Your task to perform on an android device: visit the assistant section in the google photos Image 0: 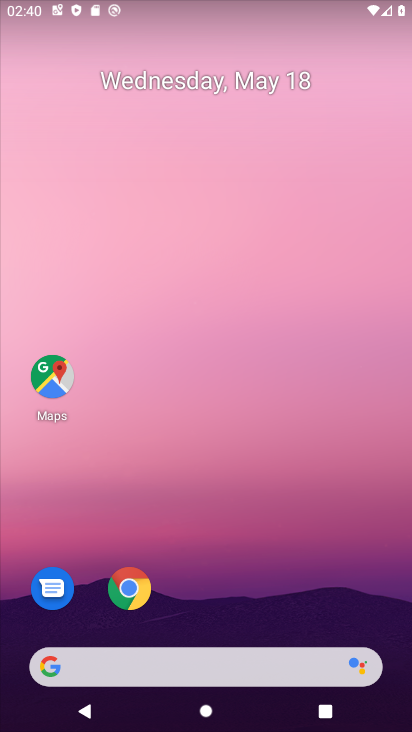
Step 0: drag from (54, 514) to (229, 171)
Your task to perform on an android device: visit the assistant section in the google photos Image 1: 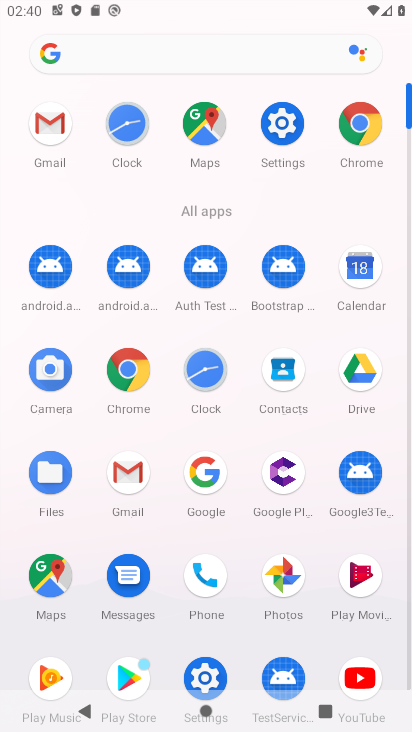
Step 1: click (280, 560)
Your task to perform on an android device: visit the assistant section in the google photos Image 2: 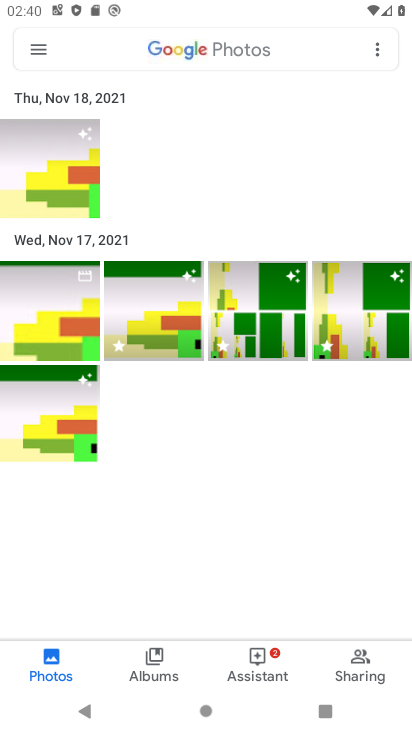
Step 2: click (245, 656)
Your task to perform on an android device: visit the assistant section in the google photos Image 3: 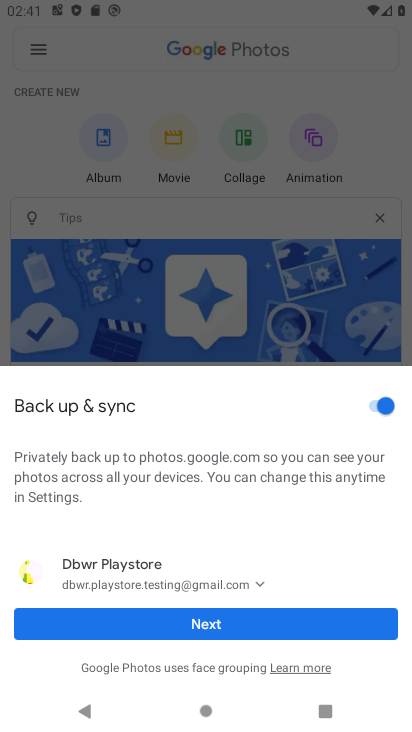
Step 3: click (213, 618)
Your task to perform on an android device: visit the assistant section in the google photos Image 4: 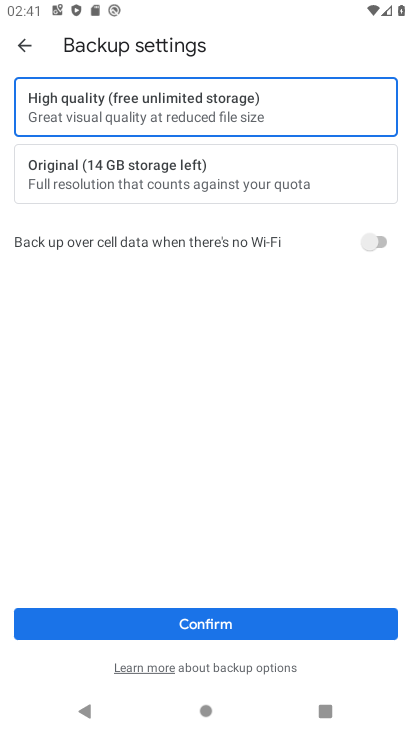
Step 4: press back button
Your task to perform on an android device: visit the assistant section in the google photos Image 5: 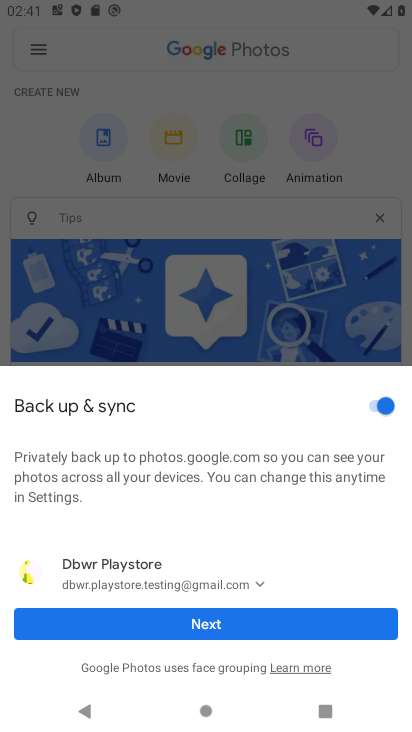
Step 5: click (71, 705)
Your task to perform on an android device: visit the assistant section in the google photos Image 6: 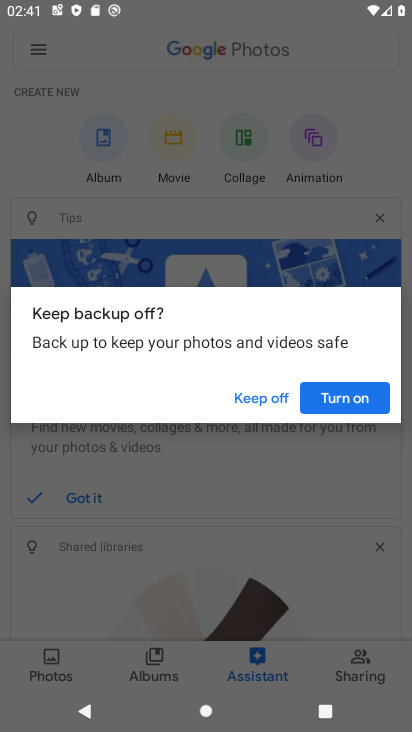
Step 6: click (342, 402)
Your task to perform on an android device: visit the assistant section in the google photos Image 7: 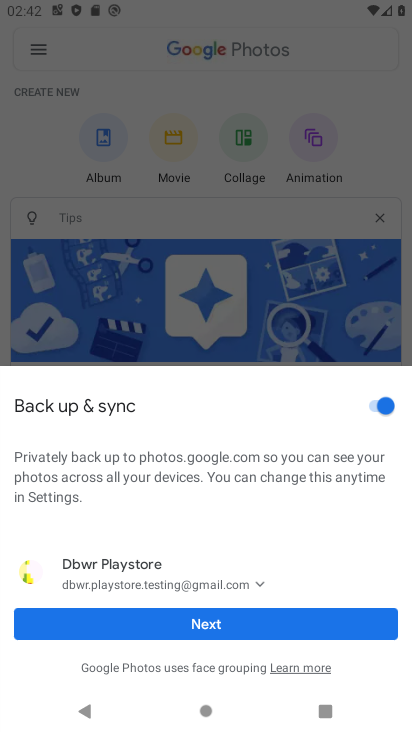
Step 7: press home button
Your task to perform on an android device: visit the assistant section in the google photos Image 8: 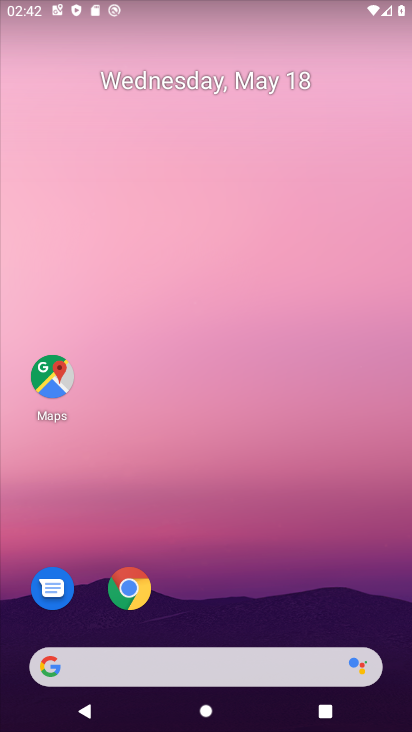
Step 8: drag from (51, 572) to (284, 203)
Your task to perform on an android device: visit the assistant section in the google photos Image 9: 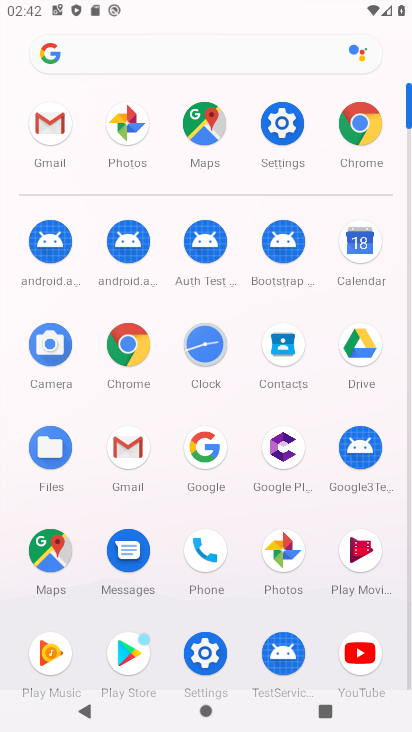
Step 9: click (275, 561)
Your task to perform on an android device: visit the assistant section in the google photos Image 10: 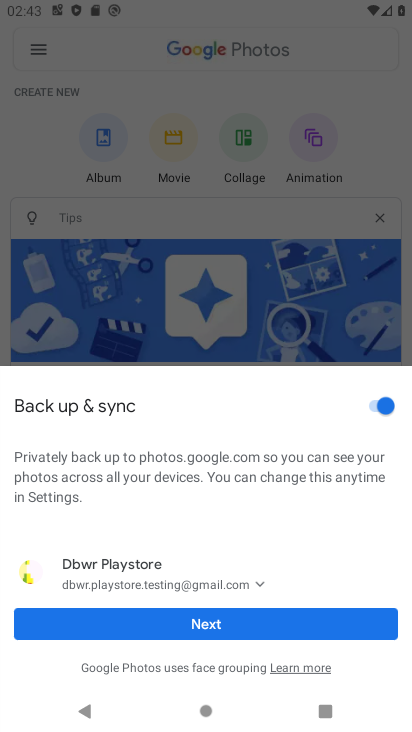
Step 10: click (231, 626)
Your task to perform on an android device: visit the assistant section in the google photos Image 11: 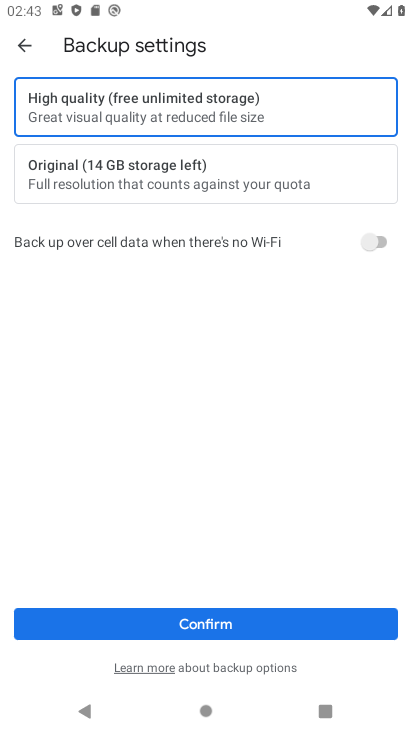
Step 11: click (183, 629)
Your task to perform on an android device: visit the assistant section in the google photos Image 12: 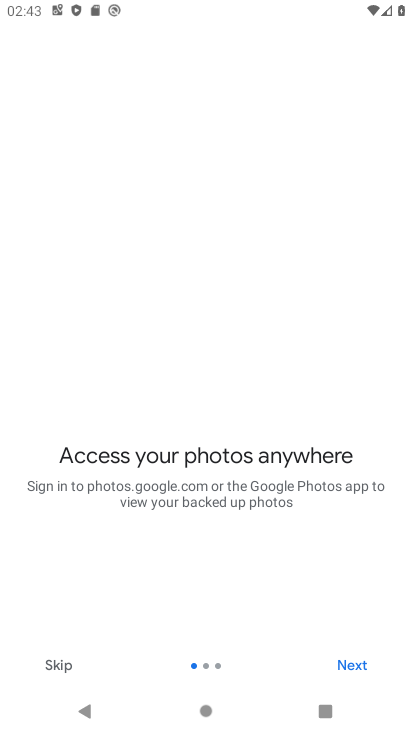
Step 12: click (355, 671)
Your task to perform on an android device: visit the assistant section in the google photos Image 13: 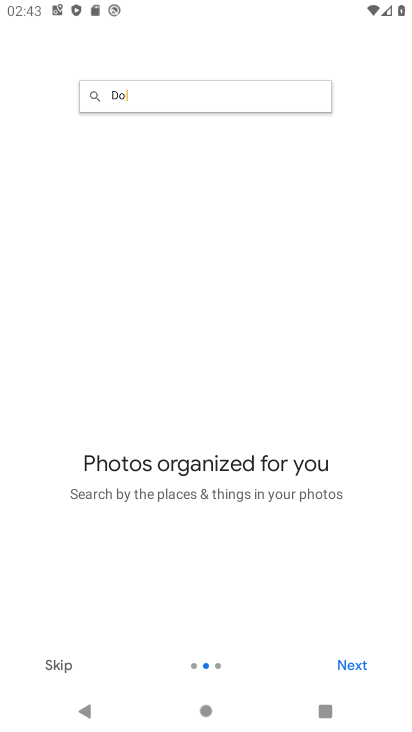
Step 13: click (354, 663)
Your task to perform on an android device: visit the assistant section in the google photos Image 14: 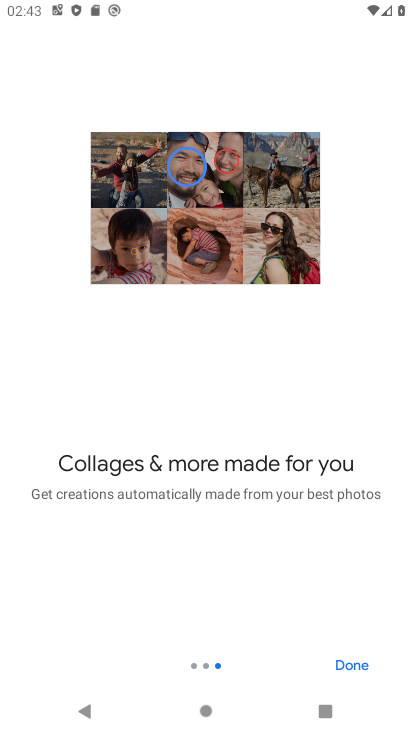
Step 14: click (354, 663)
Your task to perform on an android device: visit the assistant section in the google photos Image 15: 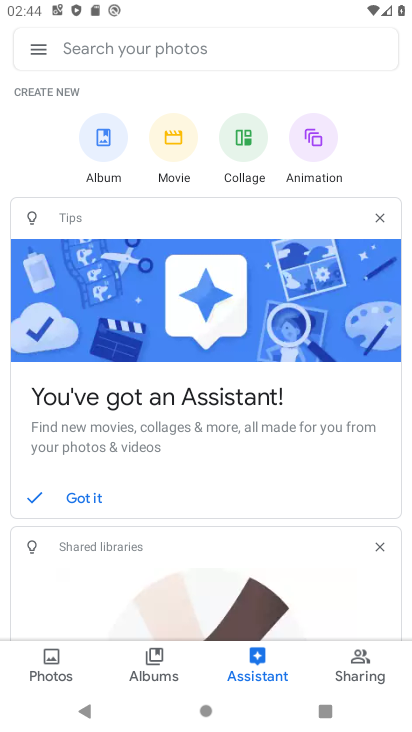
Step 15: task complete